Your task to perform on an android device: turn off location Image 0: 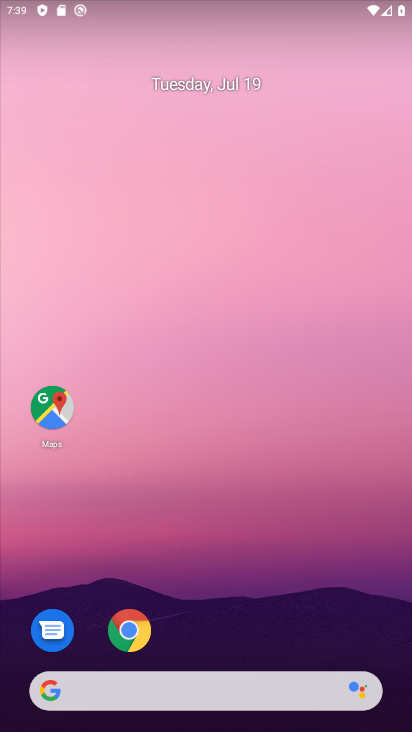
Step 0: drag from (199, 694) to (221, 276)
Your task to perform on an android device: turn off location Image 1: 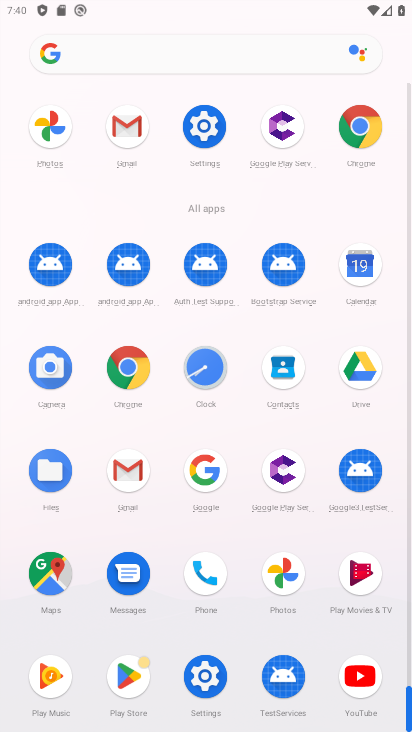
Step 1: click (203, 126)
Your task to perform on an android device: turn off location Image 2: 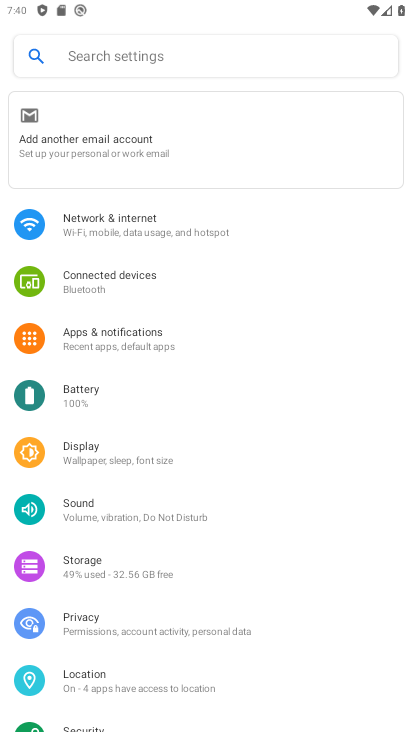
Step 2: drag from (183, 592) to (228, 353)
Your task to perform on an android device: turn off location Image 3: 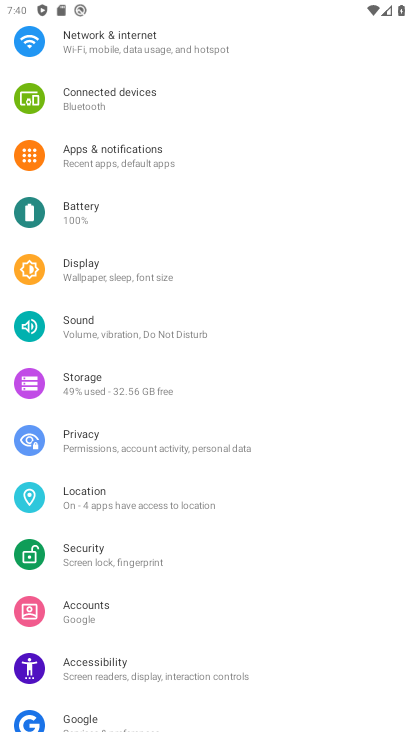
Step 3: click (168, 501)
Your task to perform on an android device: turn off location Image 4: 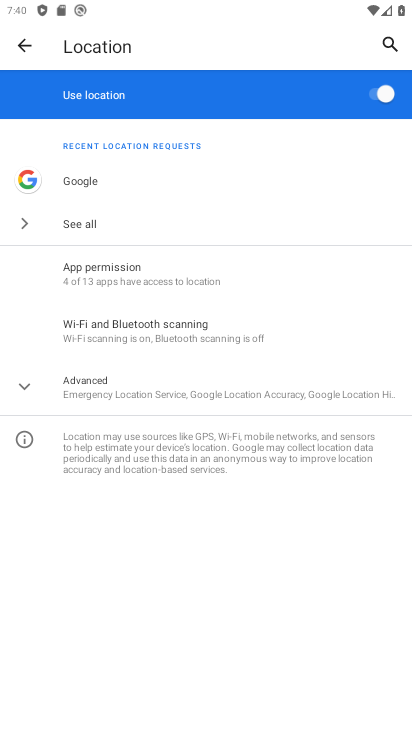
Step 4: click (299, 96)
Your task to perform on an android device: turn off location Image 5: 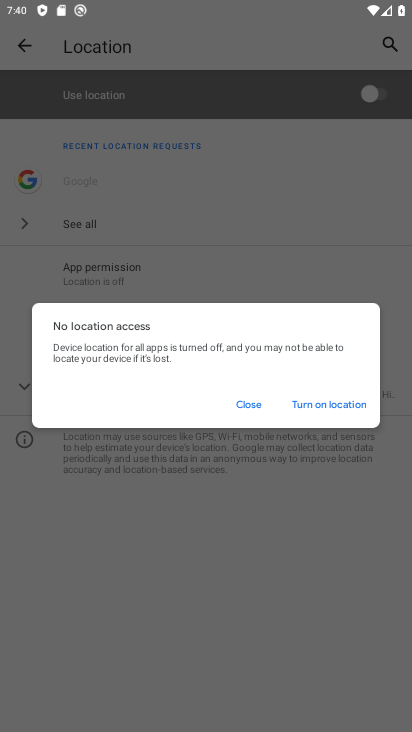
Step 5: click (251, 406)
Your task to perform on an android device: turn off location Image 6: 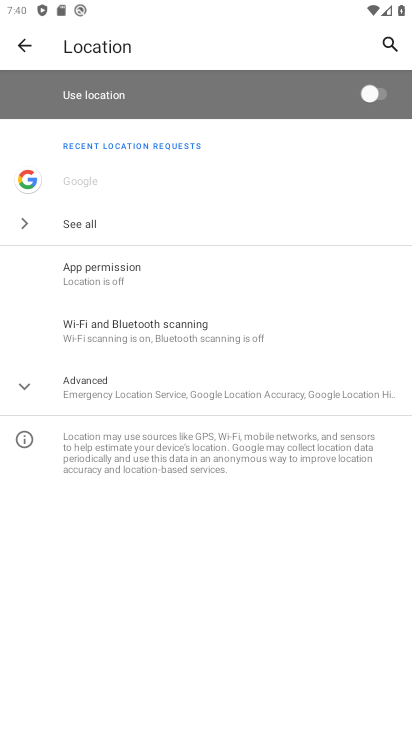
Step 6: task complete